Your task to perform on an android device: refresh tabs in the chrome app Image 0: 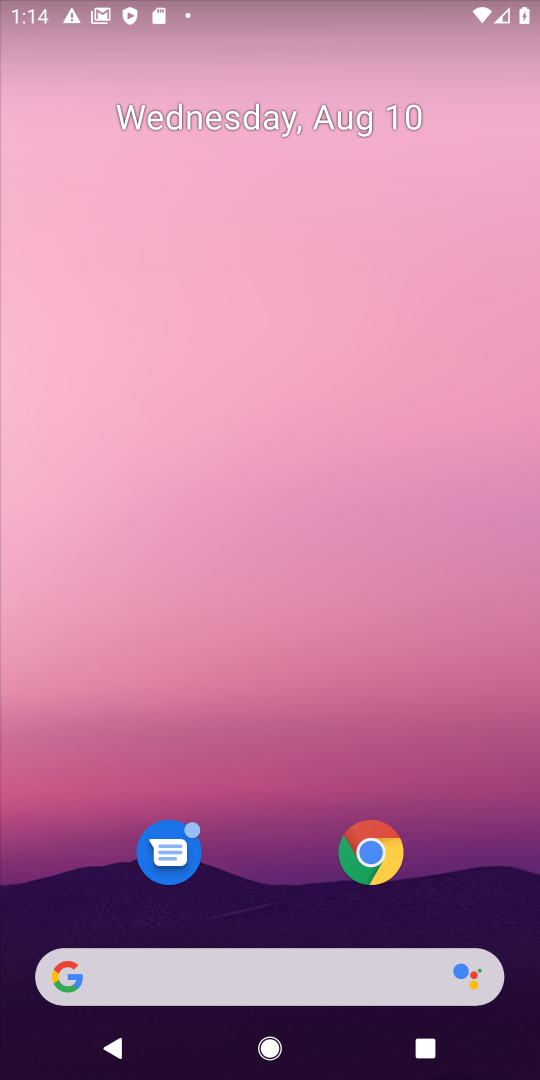
Step 0: drag from (246, 829) to (286, 0)
Your task to perform on an android device: refresh tabs in the chrome app Image 1: 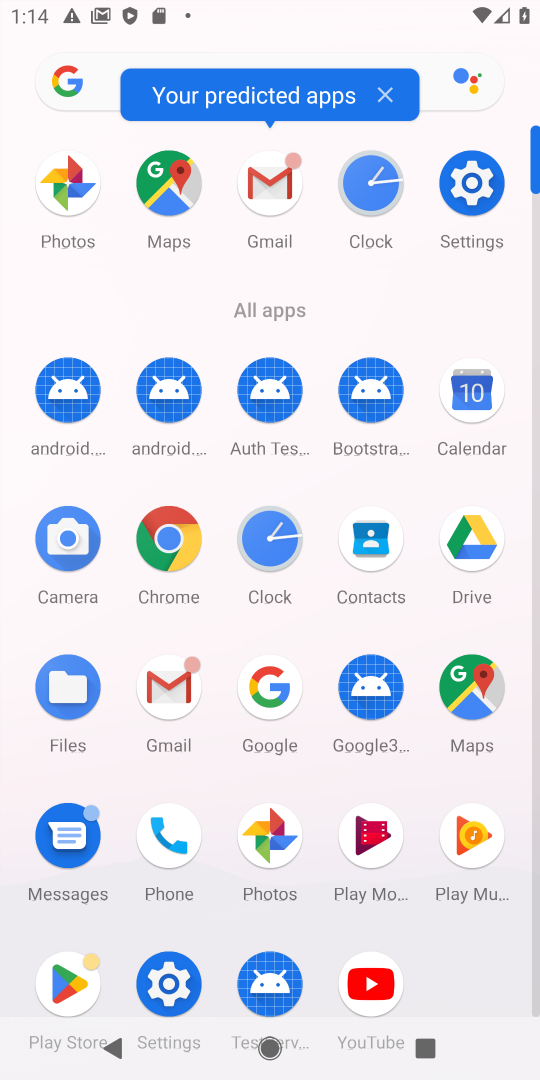
Step 1: click (167, 544)
Your task to perform on an android device: refresh tabs in the chrome app Image 2: 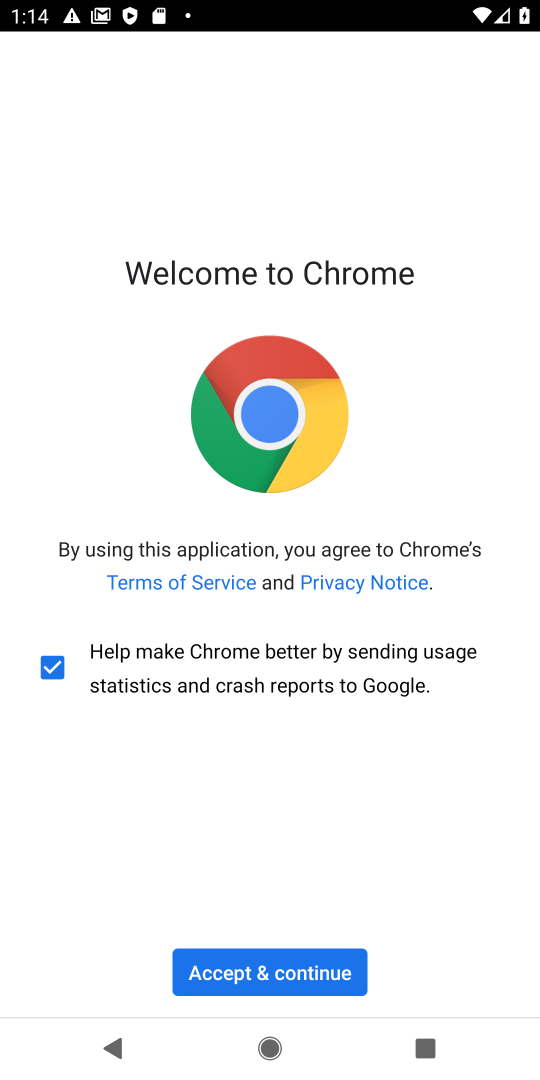
Step 2: click (327, 958)
Your task to perform on an android device: refresh tabs in the chrome app Image 3: 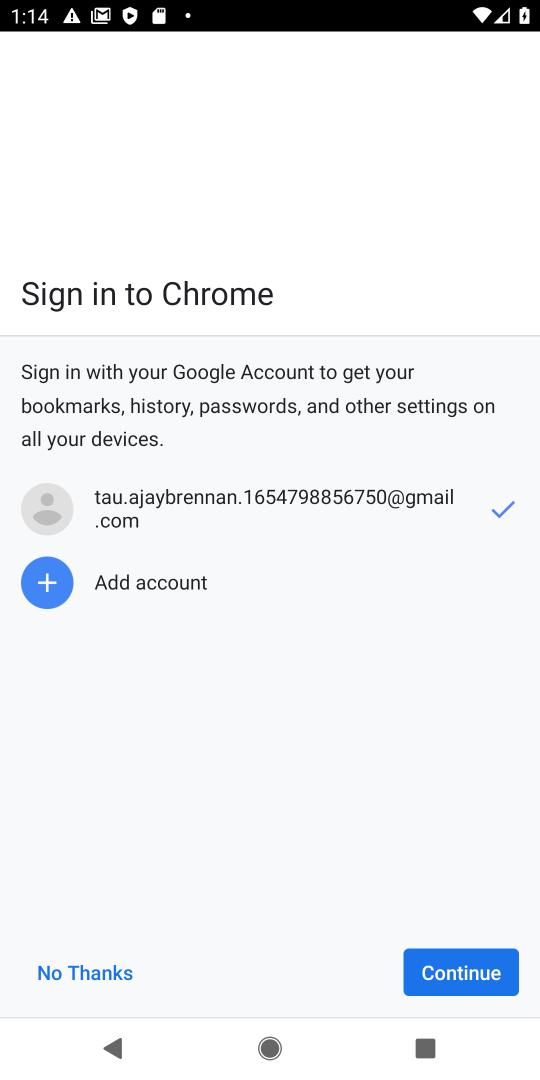
Step 3: click (459, 970)
Your task to perform on an android device: refresh tabs in the chrome app Image 4: 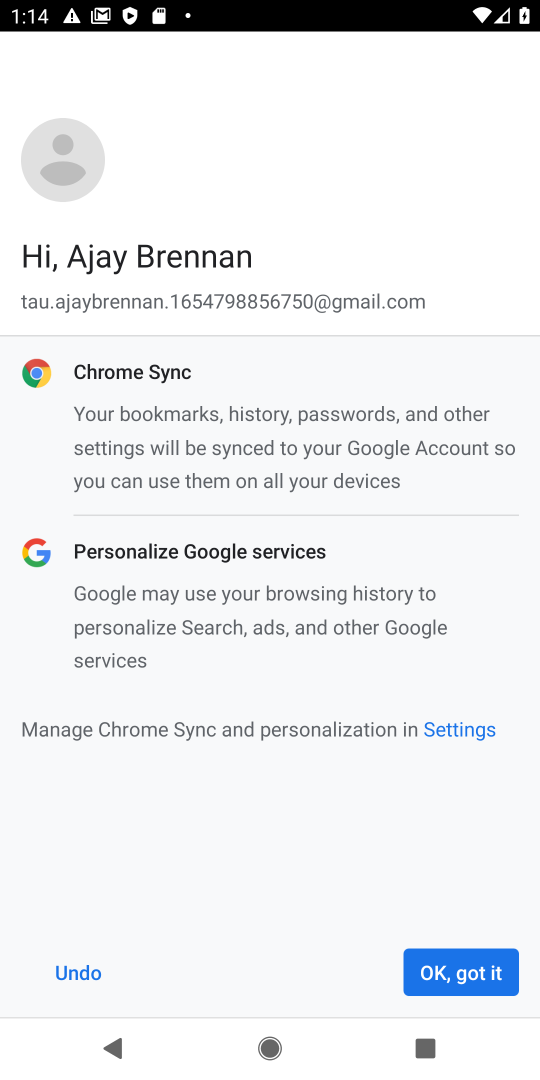
Step 4: click (483, 957)
Your task to perform on an android device: refresh tabs in the chrome app Image 5: 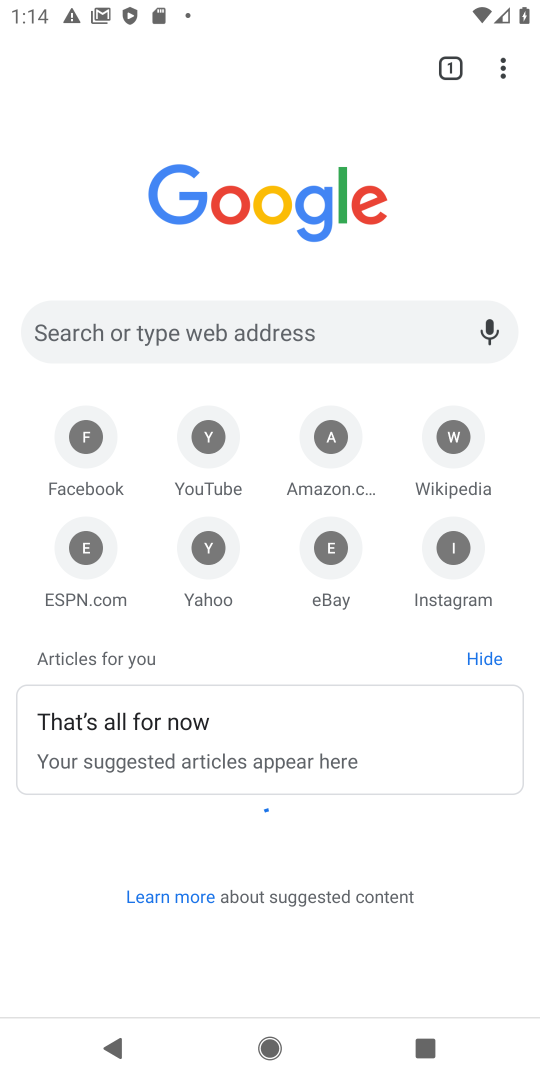
Step 5: click (504, 53)
Your task to perform on an android device: refresh tabs in the chrome app Image 6: 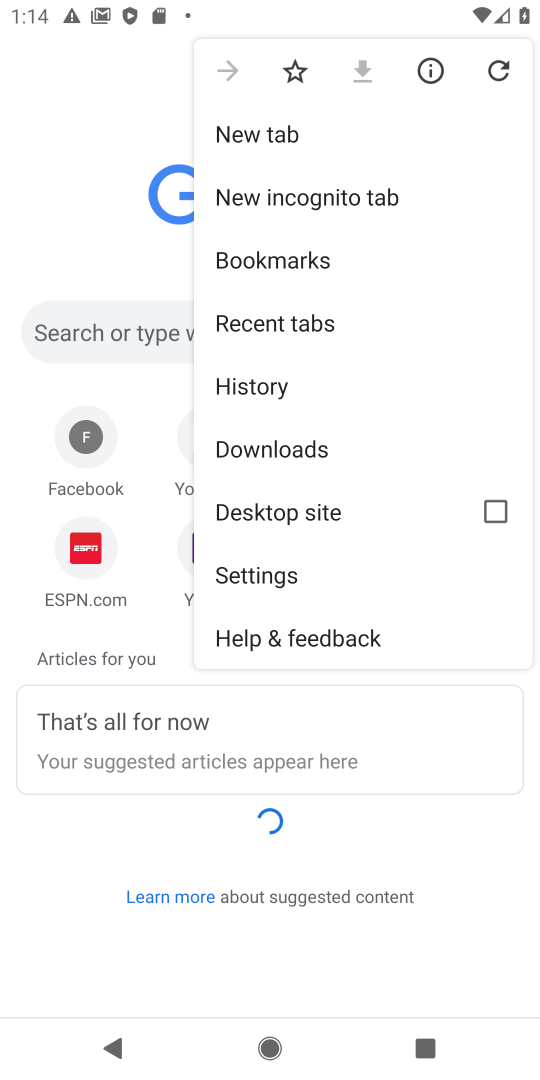
Step 6: click (506, 71)
Your task to perform on an android device: refresh tabs in the chrome app Image 7: 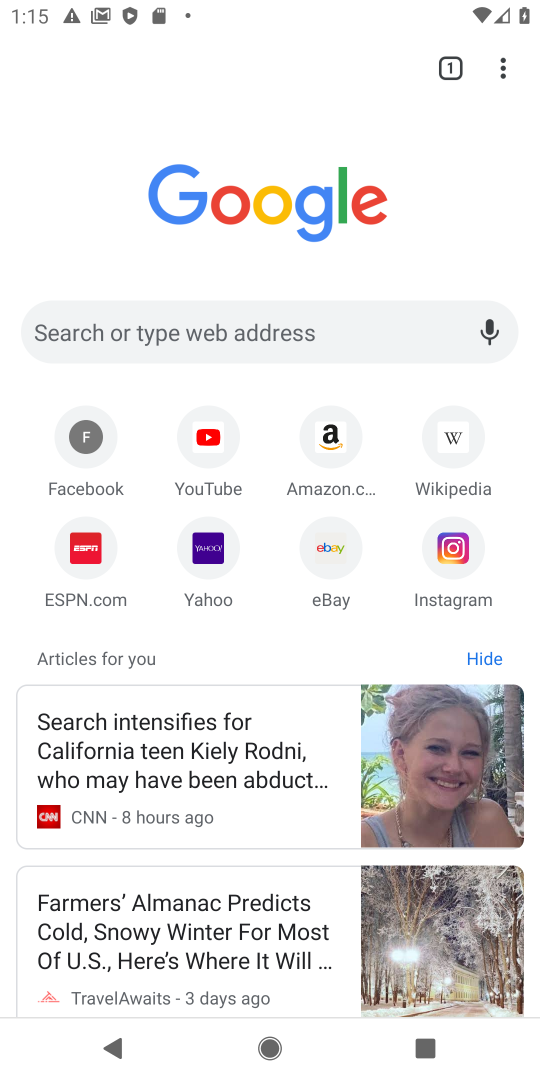
Step 7: task complete